Your task to perform on an android device: Go to Amazon Image 0: 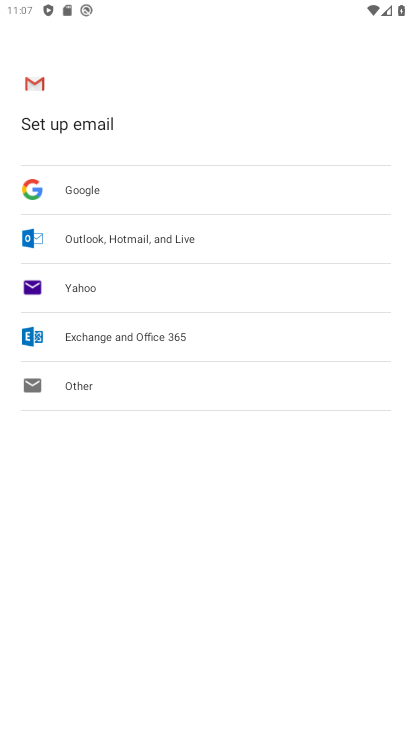
Step 0: press home button
Your task to perform on an android device: Go to Amazon Image 1: 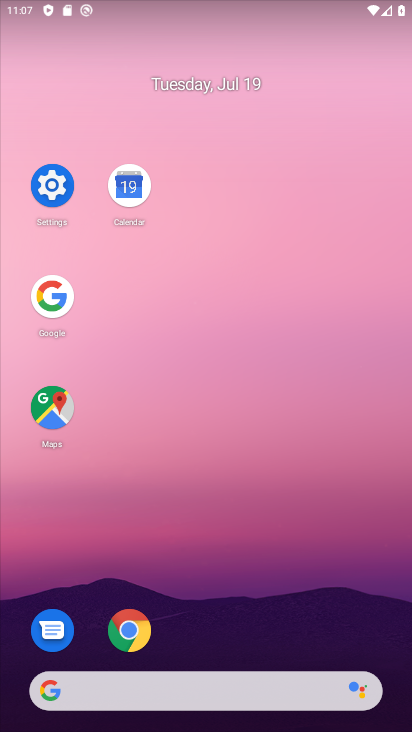
Step 1: click (130, 639)
Your task to perform on an android device: Go to Amazon Image 2: 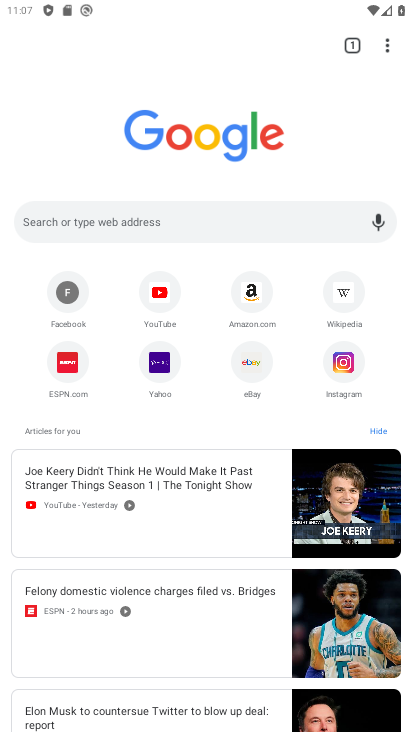
Step 2: click (248, 278)
Your task to perform on an android device: Go to Amazon Image 3: 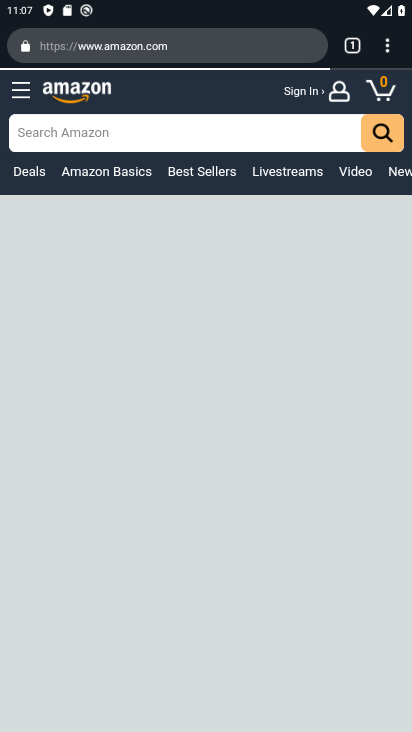
Step 3: task complete